Your task to perform on an android device: turn on showing notifications on the lock screen Image 0: 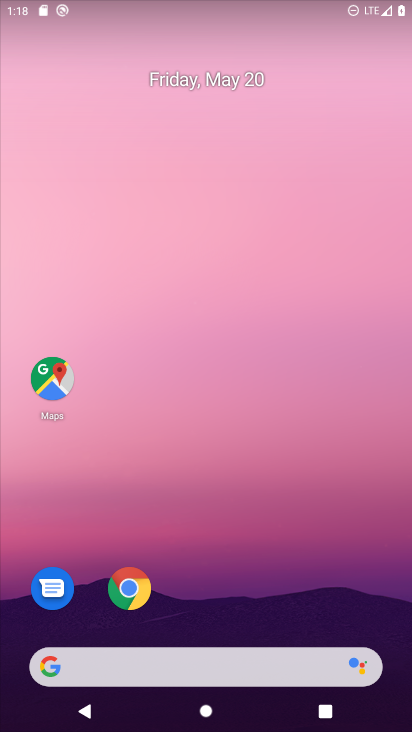
Step 0: drag from (388, 636) to (315, 104)
Your task to perform on an android device: turn on showing notifications on the lock screen Image 1: 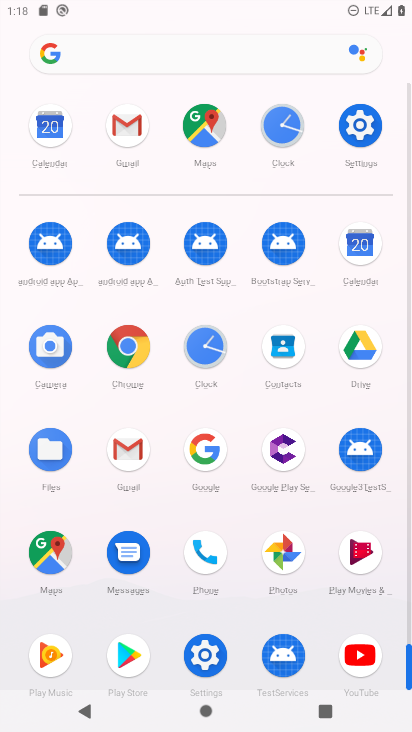
Step 1: click (205, 656)
Your task to perform on an android device: turn on showing notifications on the lock screen Image 2: 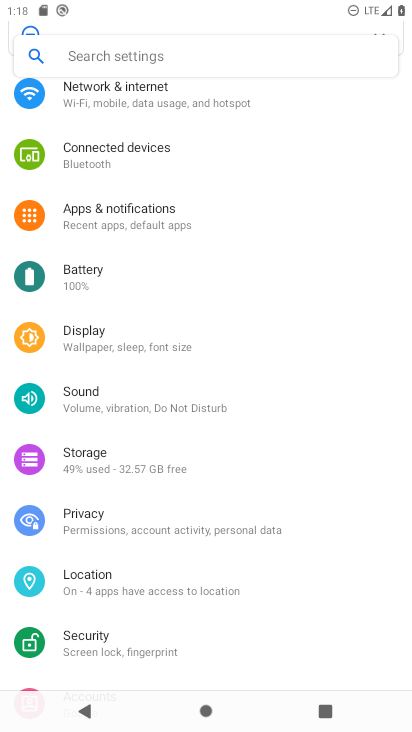
Step 2: click (107, 202)
Your task to perform on an android device: turn on showing notifications on the lock screen Image 3: 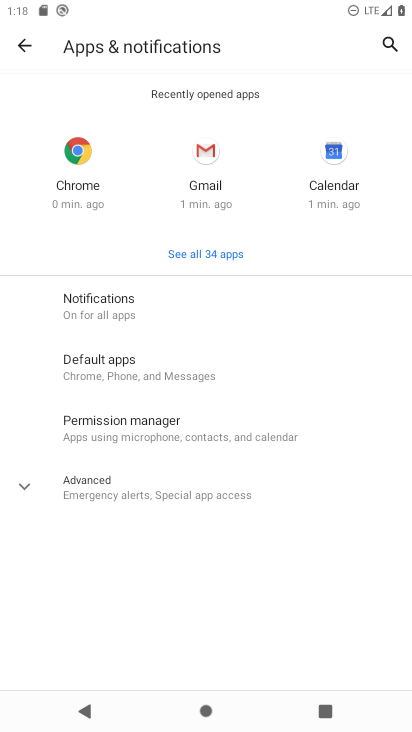
Step 3: click (109, 310)
Your task to perform on an android device: turn on showing notifications on the lock screen Image 4: 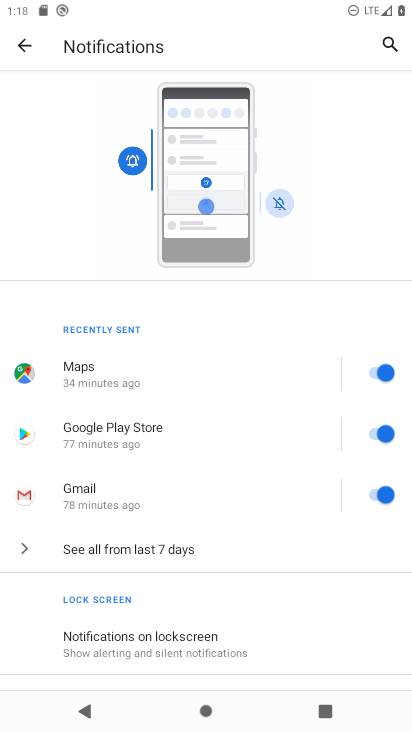
Step 4: drag from (273, 602) to (255, 236)
Your task to perform on an android device: turn on showing notifications on the lock screen Image 5: 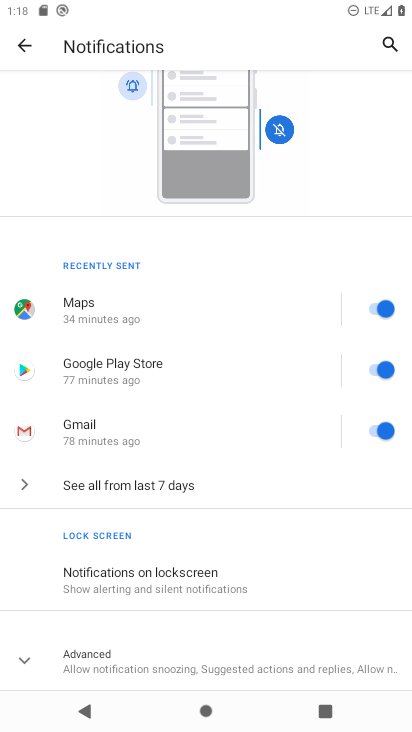
Step 5: click (22, 667)
Your task to perform on an android device: turn on showing notifications on the lock screen Image 6: 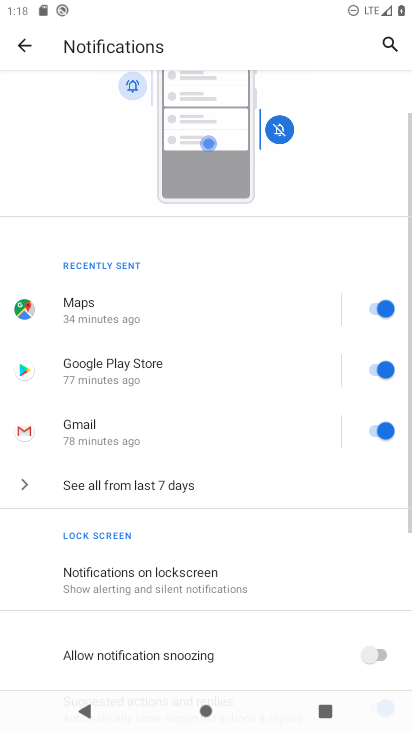
Step 6: click (172, 577)
Your task to perform on an android device: turn on showing notifications on the lock screen Image 7: 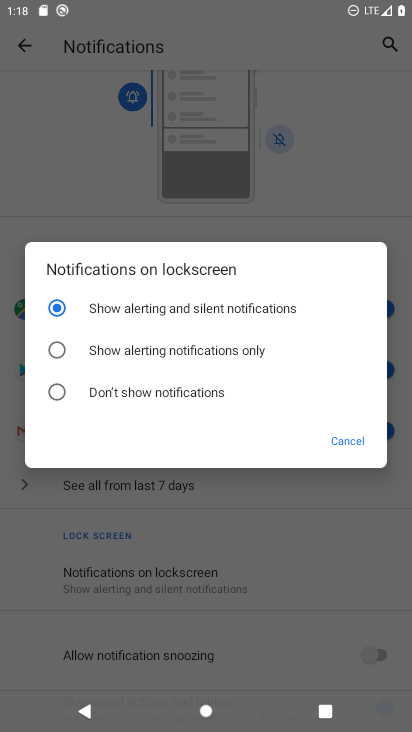
Step 7: task complete